Your task to perform on an android device: Search for Italian restaurants on Maps Image 0: 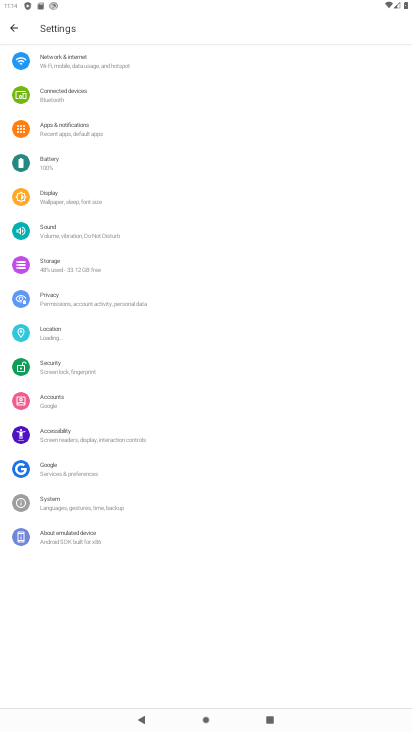
Step 0: press home button
Your task to perform on an android device: Search for Italian restaurants on Maps Image 1: 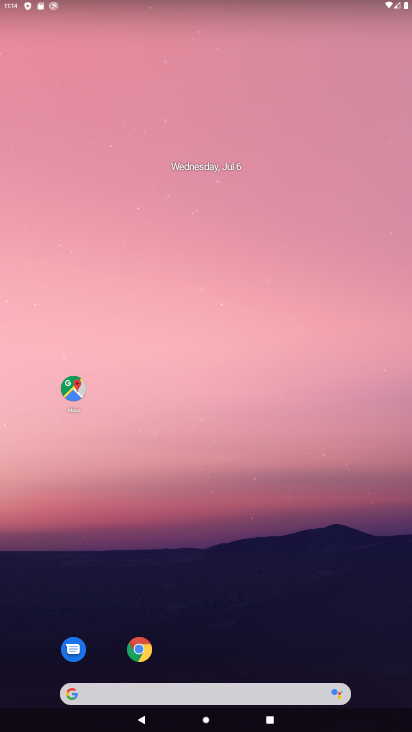
Step 1: drag from (197, 656) to (204, 1)
Your task to perform on an android device: Search for Italian restaurants on Maps Image 2: 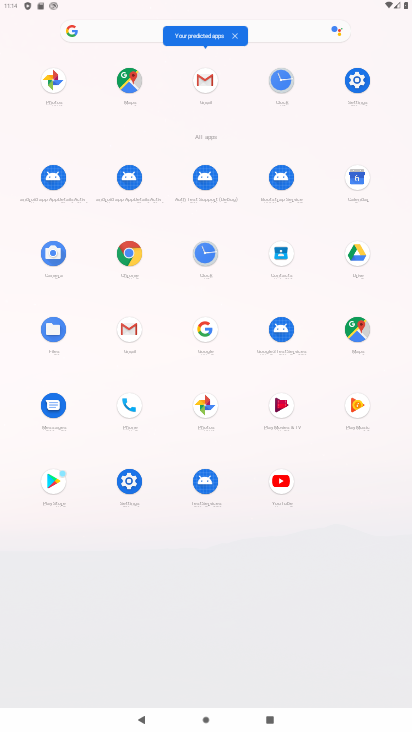
Step 2: click (135, 483)
Your task to perform on an android device: Search for Italian restaurants on Maps Image 3: 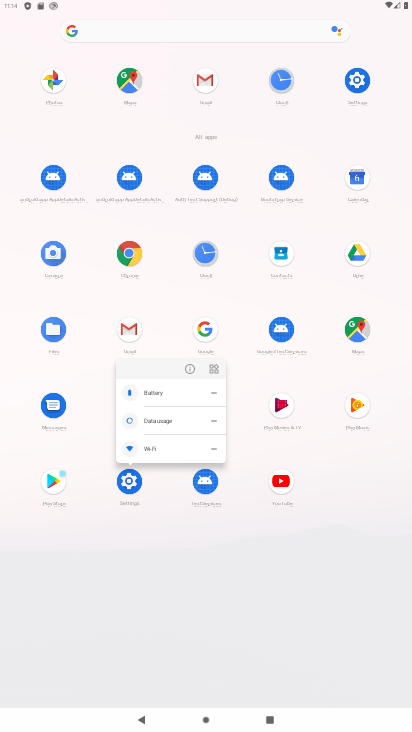
Step 3: click (135, 483)
Your task to perform on an android device: Search for Italian restaurants on Maps Image 4: 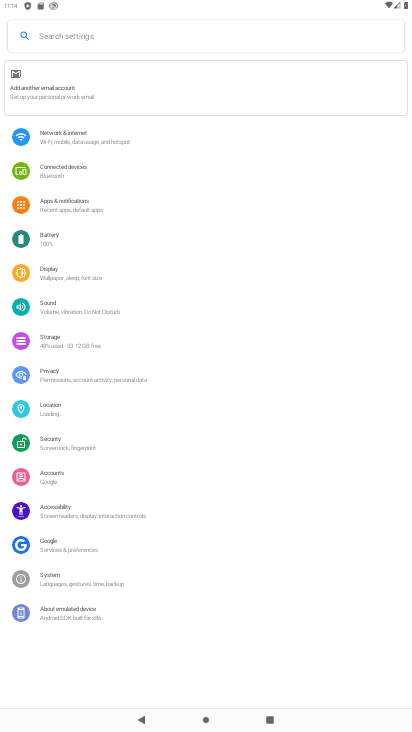
Step 4: press home button
Your task to perform on an android device: Search for Italian restaurants on Maps Image 5: 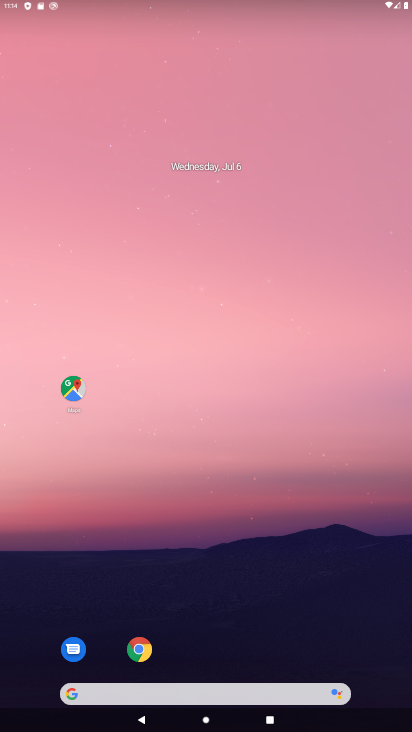
Step 5: drag from (215, 607) to (268, 69)
Your task to perform on an android device: Search for Italian restaurants on Maps Image 6: 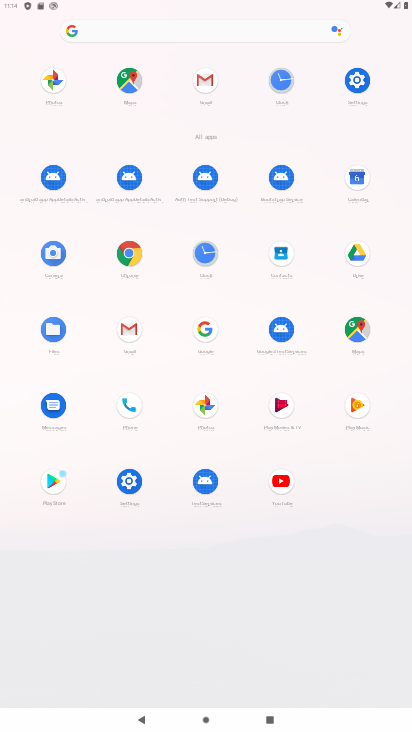
Step 6: click (368, 326)
Your task to perform on an android device: Search for Italian restaurants on Maps Image 7: 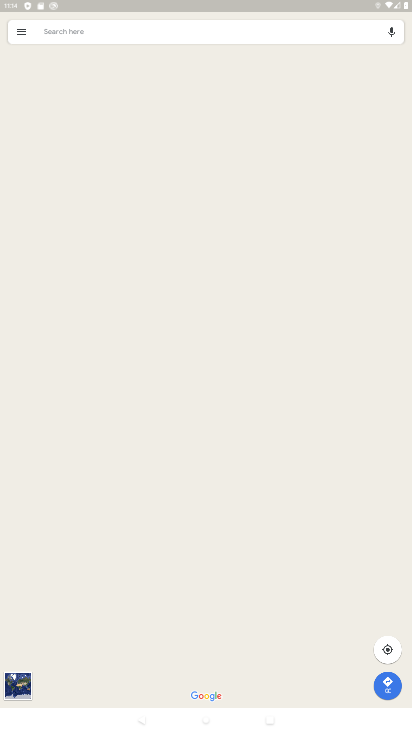
Step 7: click (213, 38)
Your task to perform on an android device: Search for Italian restaurants on Maps Image 8: 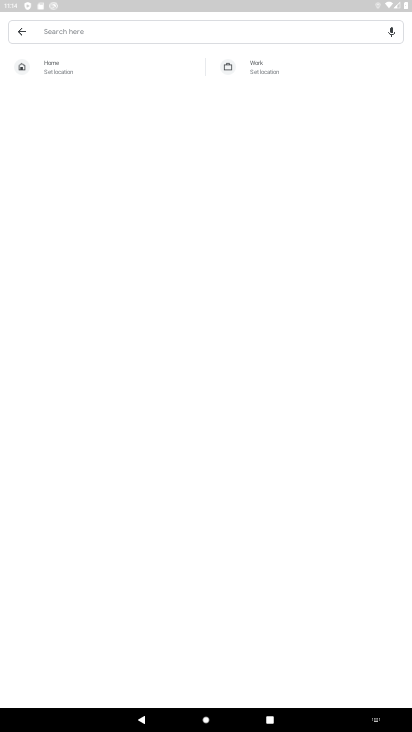
Step 8: type "italian restaurants"
Your task to perform on an android device: Search for Italian restaurants on Maps Image 9: 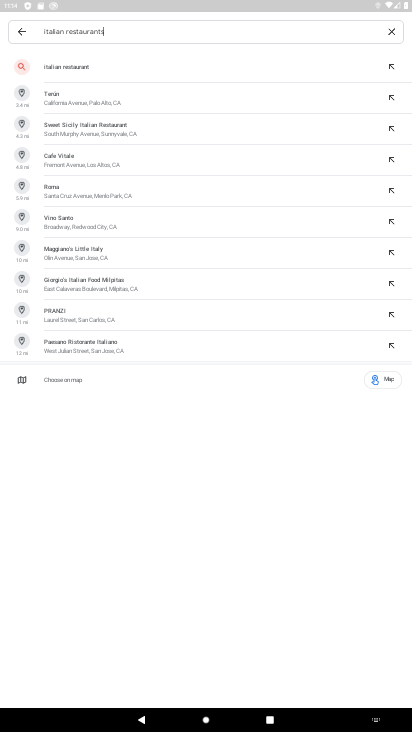
Step 9: click (87, 67)
Your task to perform on an android device: Search for Italian restaurants on Maps Image 10: 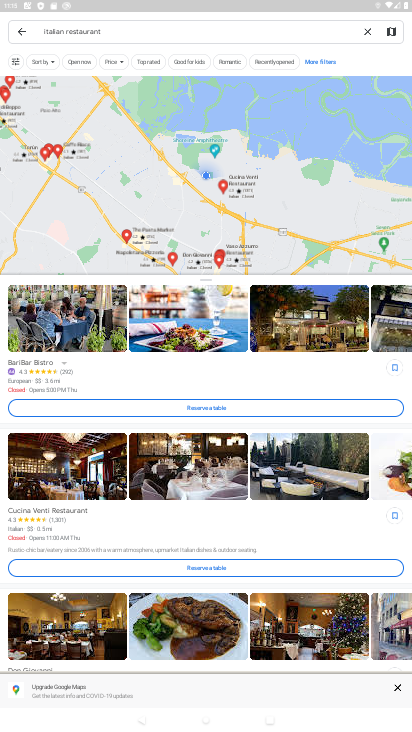
Step 10: task complete